Your task to perform on an android device: Search for seafood restaurants on Google Maps Image 0: 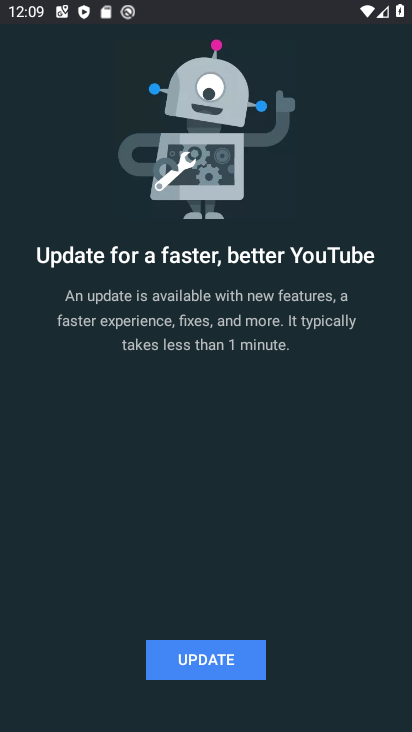
Step 0: press home button
Your task to perform on an android device: Search for seafood restaurants on Google Maps Image 1: 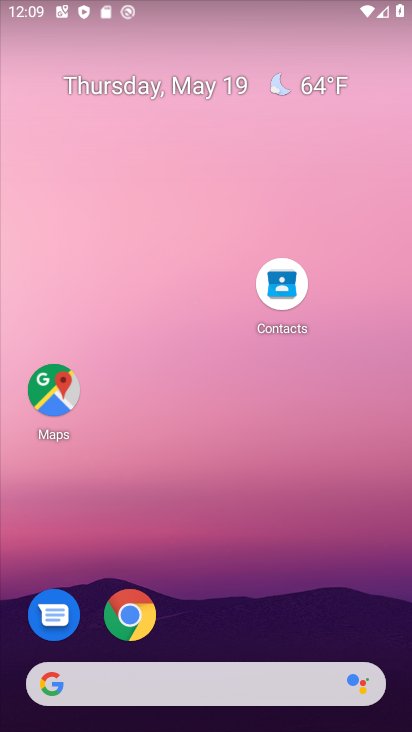
Step 1: drag from (216, 560) to (273, 148)
Your task to perform on an android device: Search for seafood restaurants on Google Maps Image 2: 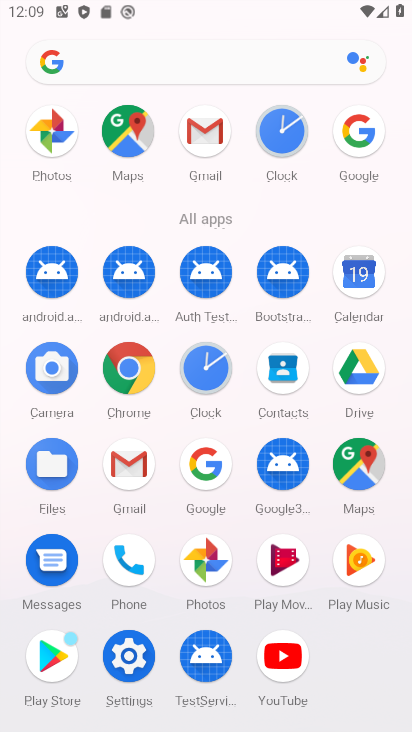
Step 2: drag from (197, 449) to (216, 321)
Your task to perform on an android device: Search for seafood restaurants on Google Maps Image 3: 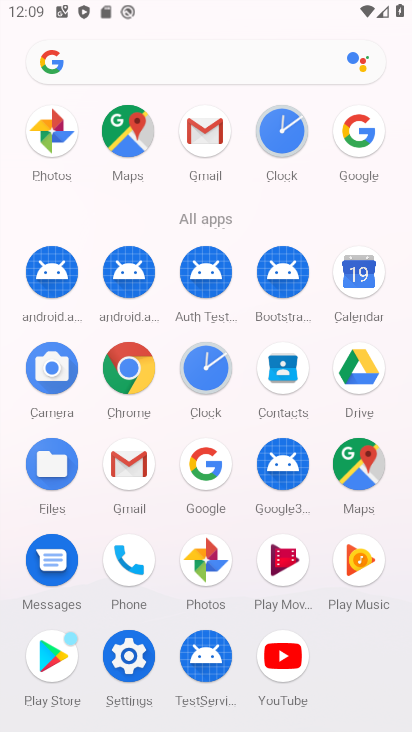
Step 3: click (350, 461)
Your task to perform on an android device: Search for seafood restaurants on Google Maps Image 4: 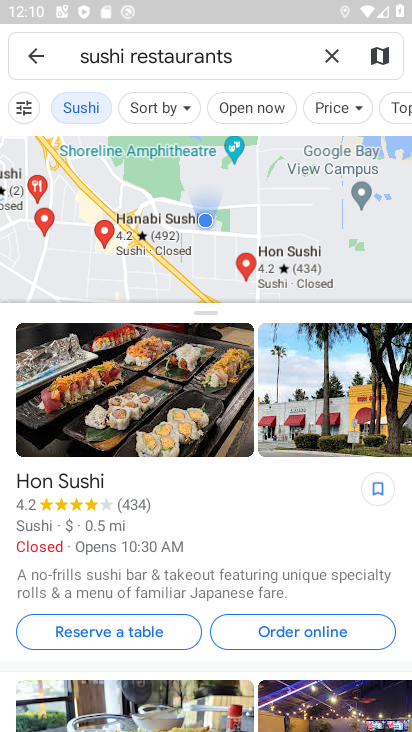
Step 4: click (329, 47)
Your task to perform on an android device: Search for seafood restaurants on Google Maps Image 5: 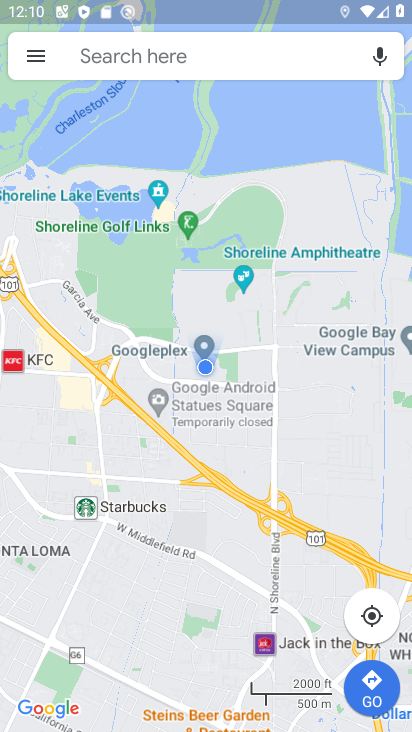
Step 5: click (279, 54)
Your task to perform on an android device: Search for seafood restaurants on Google Maps Image 6: 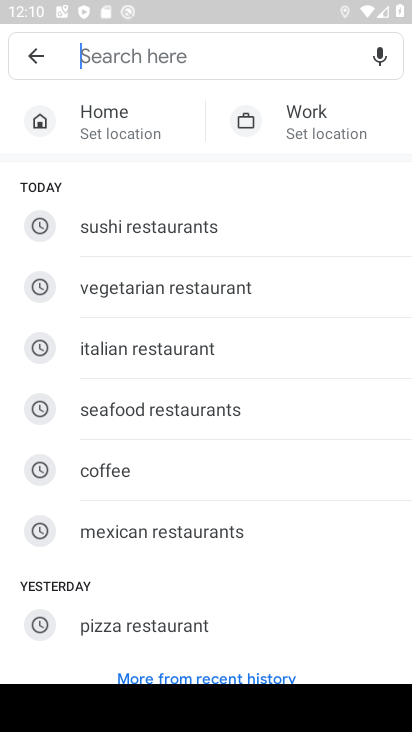
Step 6: click (212, 402)
Your task to perform on an android device: Search for seafood restaurants on Google Maps Image 7: 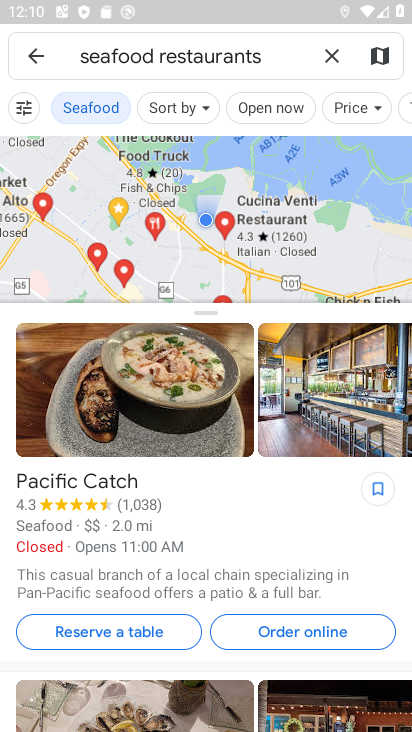
Step 7: task complete